Your task to perform on an android device: Open Yahoo.com Image 0: 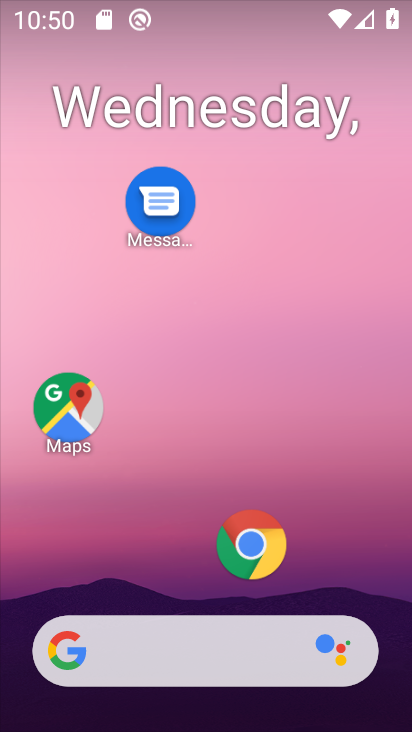
Step 0: click (213, 651)
Your task to perform on an android device: Open Yahoo.com Image 1: 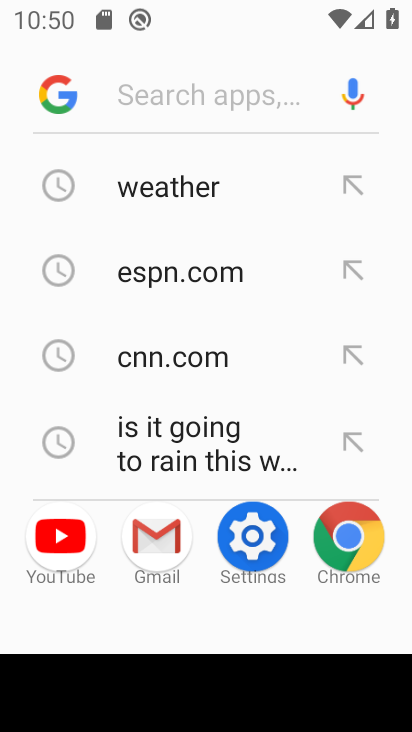
Step 1: type "Yahoo.com"
Your task to perform on an android device: Open Yahoo.com Image 2: 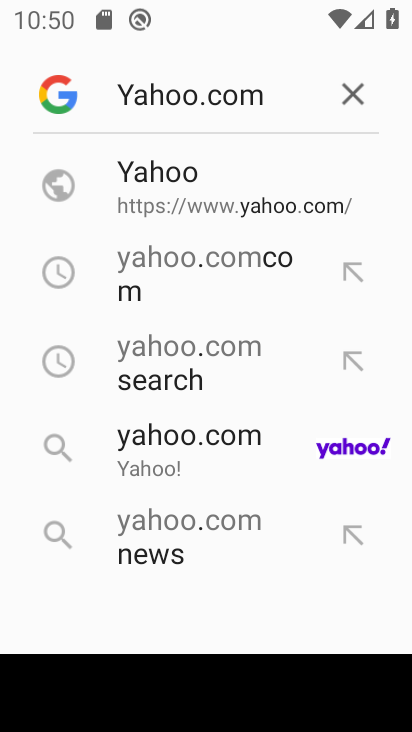
Step 2: click (194, 183)
Your task to perform on an android device: Open Yahoo.com Image 3: 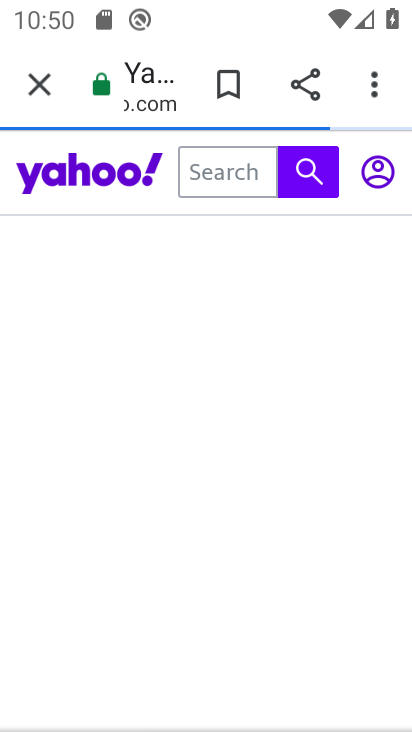
Step 3: task complete